Your task to perform on an android device: check android version Image 0: 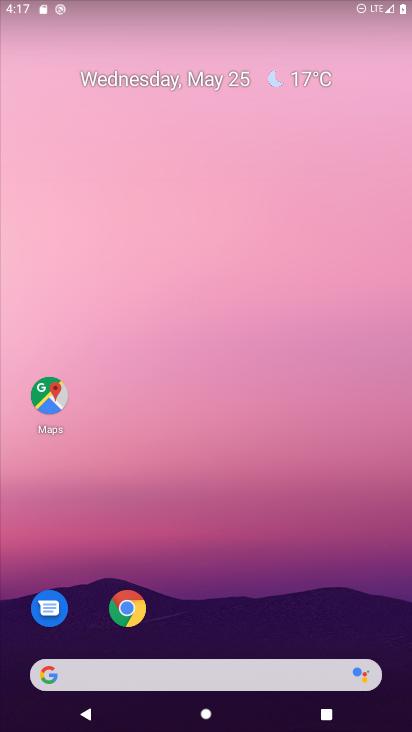
Step 0: drag from (349, 629) to (324, 100)
Your task to perform on an android device: check android version Image 1: 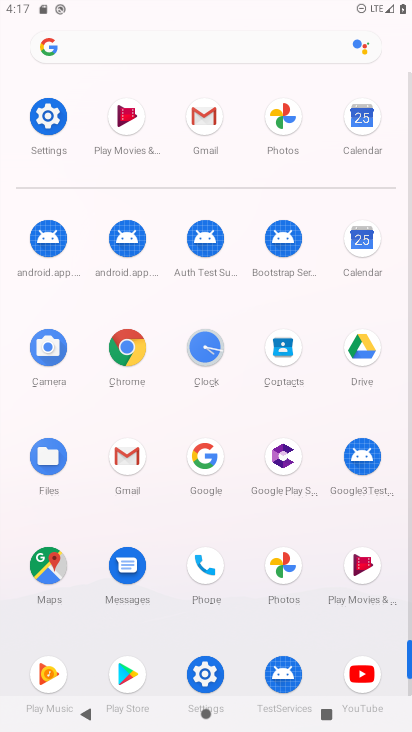
Step 1: click (204, 671)
Your task to perform on an android device: check android version Image 2: 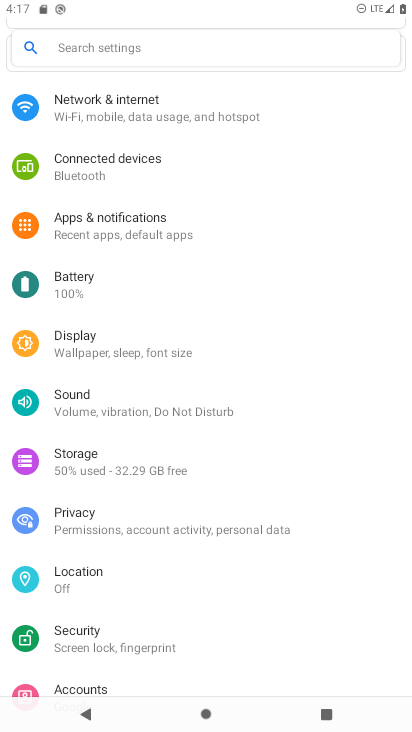
Step 2: drag from (277, 648) to (310, 157)
Your task to perform on an android device: check android version Image 3: 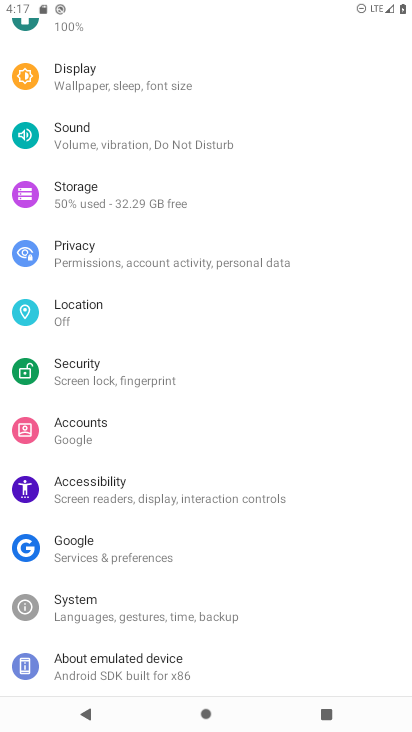
Step 3: click (116, 669)
Your task to perform on an android device: check android version Image 4: 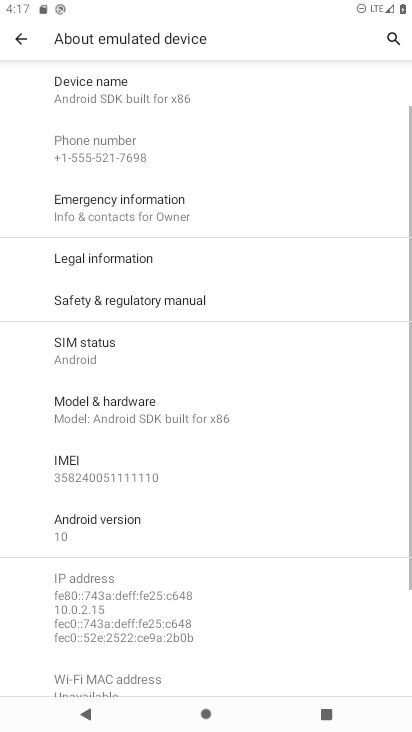
Step 4: click (107, 514)
Your task to perform on an android device: check android version Image 5: 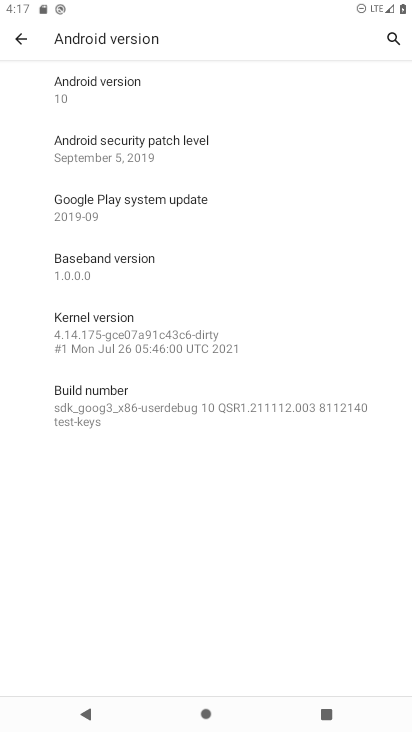
Step 5: click (93, 95)
Your task to perform on an android device: check android version Image 6: 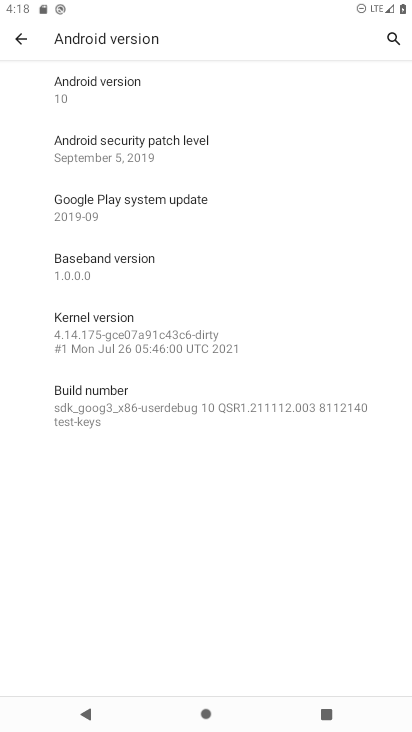
Step 6: task complete